Your task to perform on an android device: empty trash in the gmail app Image 0: 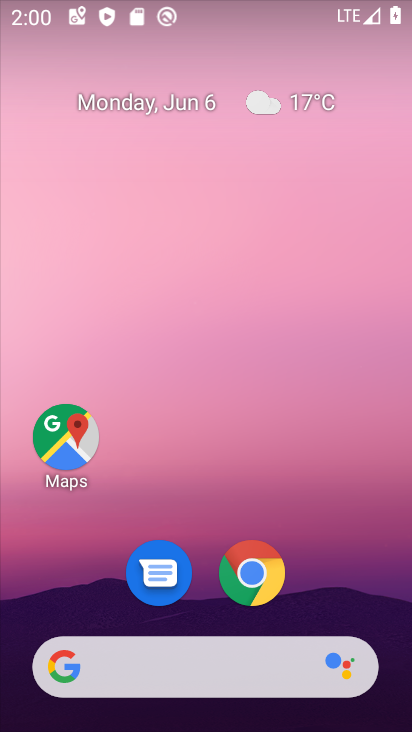
Step 0: drag from (381, 619) to (380, 279)
Your task to perform on an android device: empty trash in the gmail app Image 1: 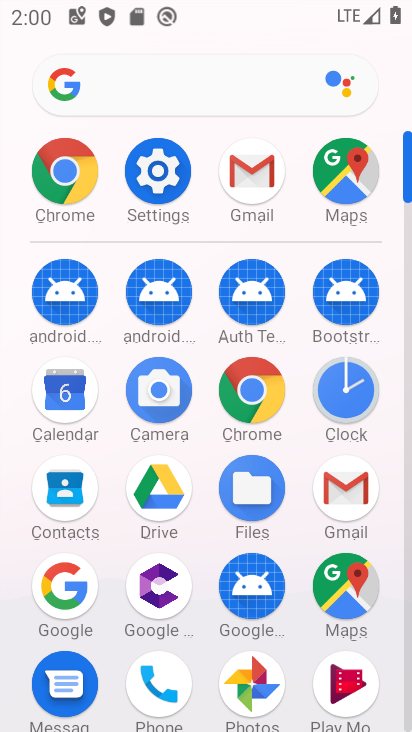
Step 1: click (234, 170)
Your task to perform on an android device: empty trash in the gmail app Image 2: 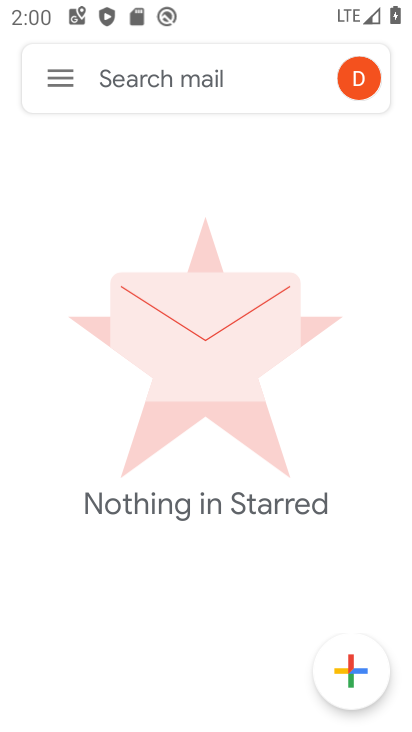
Step 2: click (63, 79)
Your task to perform on an android device: empty trash in the gmail app Image 3: 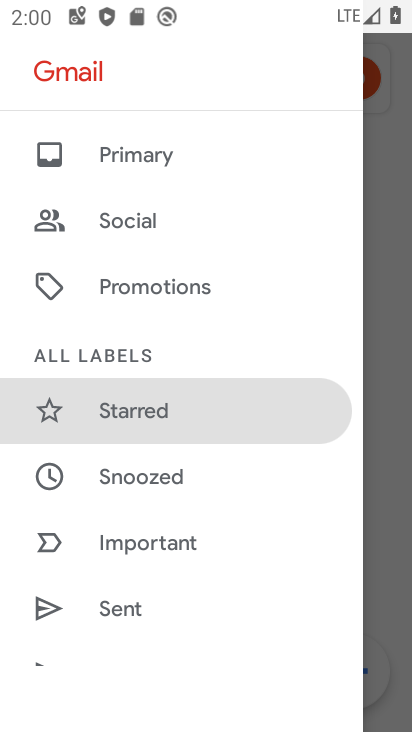
Step 3: drag from (284, 509) to (284, 421)
Your task to perform on an android device: empty trash in the gmail app Image 4: 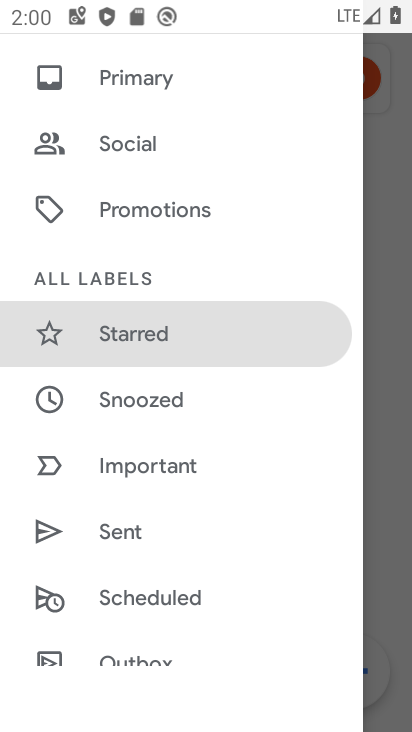
Step 4: drag from (286, 481) to (285, 379)
Your task to perform on an android device: empty trash in the gmail app Image 5: 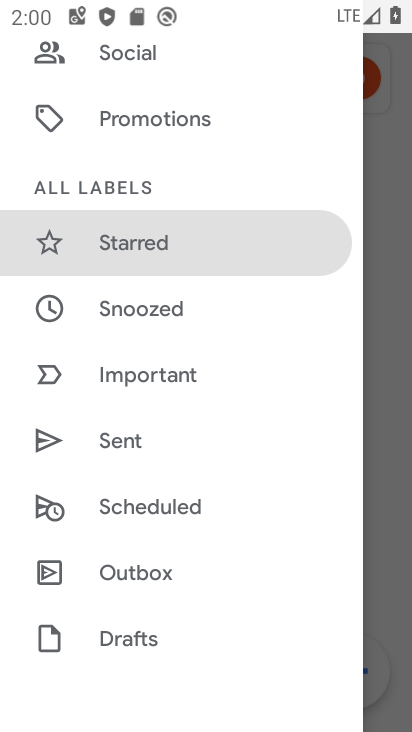
Step 5: drag from (281, 511) to (265, 383)
Your task to perform on an android device: empty trash in the gmail app Image 6: 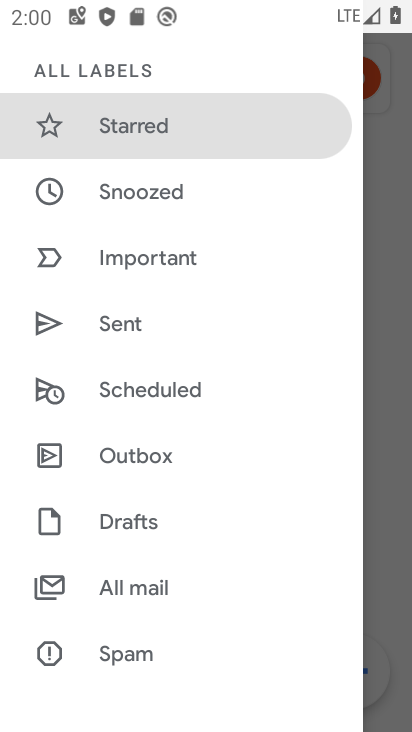
Step 6: drag from (297, 558) to (284, 453)
Your task to perform on an android device: empty trash in the gmail app Image 7: 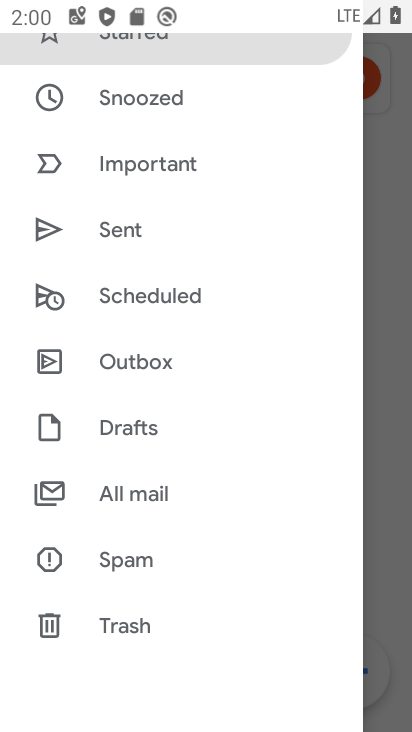
Step 7: drag from (312, 596) to (307, 468)
Your task to perform on an android device: empty trash in the gmail app Image 8: 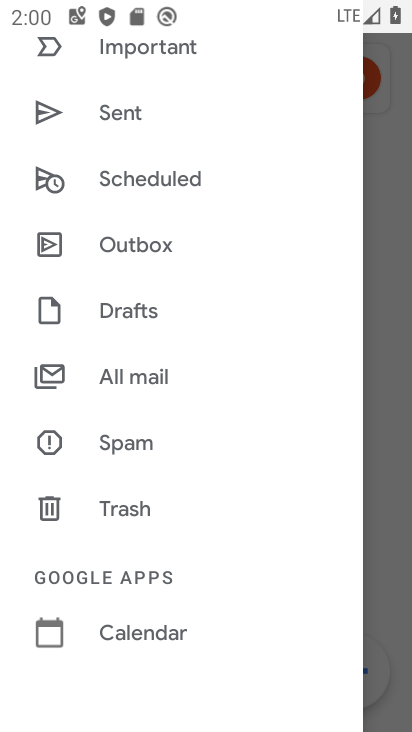
Step 8: drag from (318, 590) to (308, 434)
Your task to perform on an android device: empty trash in the gmail app Image 9: 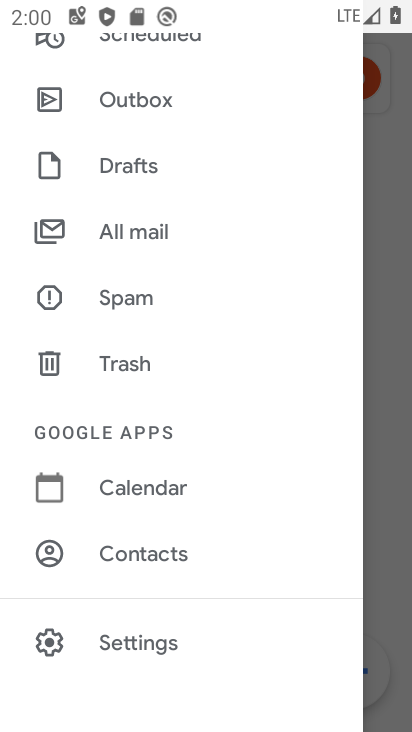
Step 9: click (152, 364)
Your task to perform on an android device: empty trash in the gmail app Image 10: 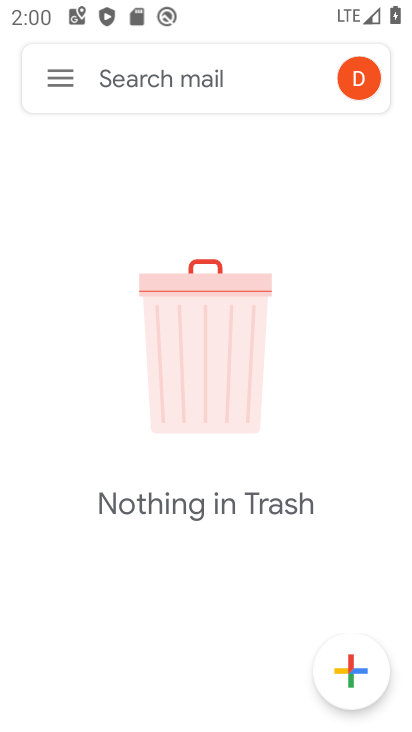
Step 10: task complete